Your task to perform on an android device: clear all cookies in the chrome app Image 0: 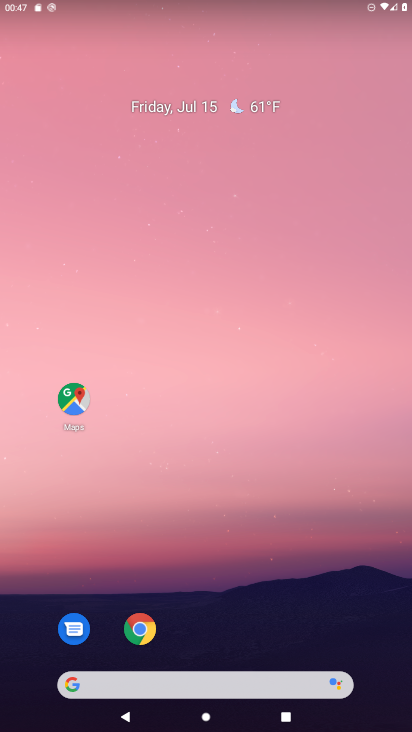
Step 0: click (147, 633)
Your task to perform on an android device: clear all cookies in the chrome app Image 1: 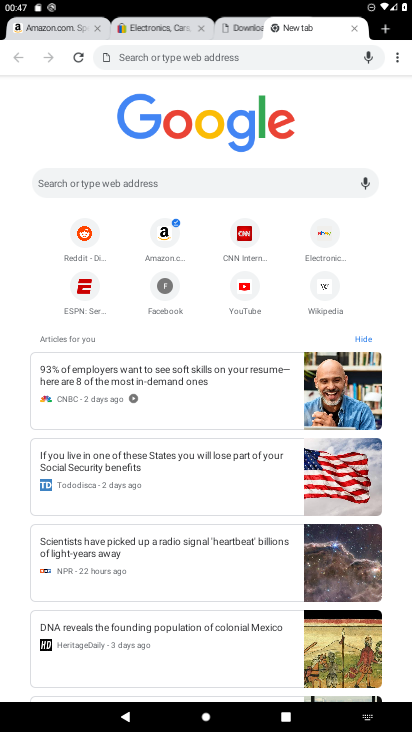
Step 1: click (405, 62)
Your task to perform on an android device: clear all cookies in the chrome app Image 2: 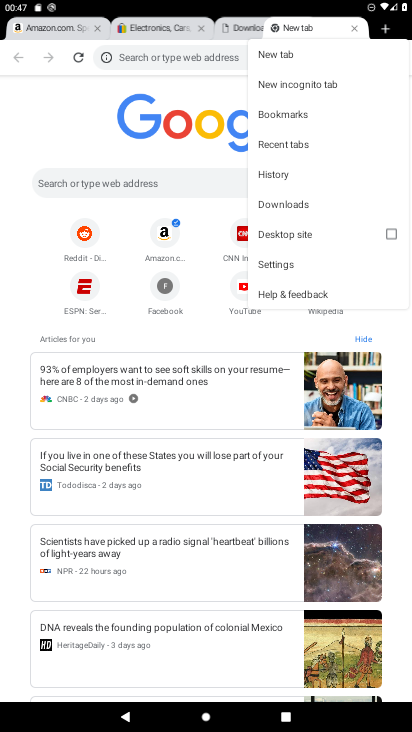
Step 2: click (296, 266)
Your task to perform on an android device: clear all cookies in the chrome app Image 3: 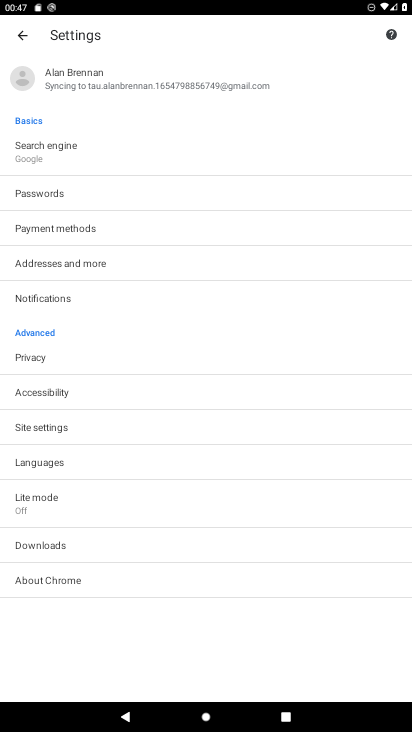
Step 3: click (27, 35)
Your task to perform on an android device: clear all cookies in the chrome app Image 4: 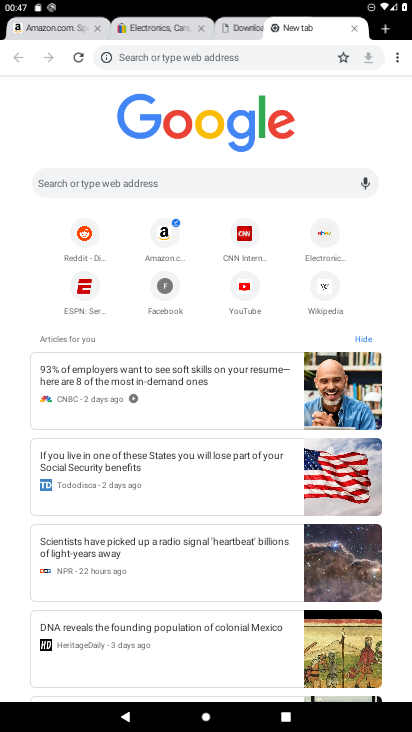
Step 4: click (398, 57)
Your task to perform on an android device: clear all cookies in the chrome app Image 5: 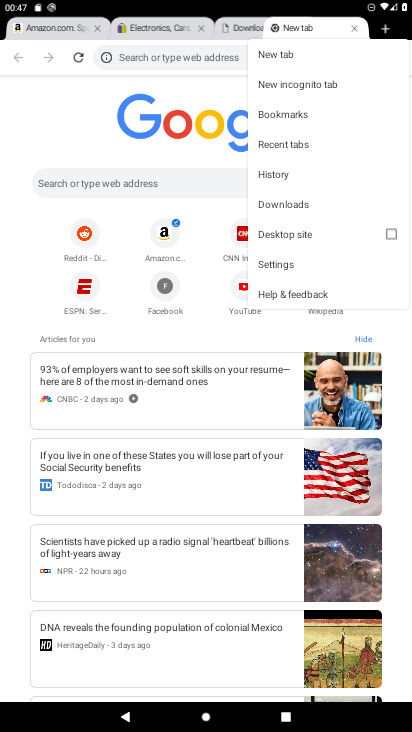
Step 5: click (285, 170)
Your task to perform on an android device: clear all cookies in the chrome app Image 6: 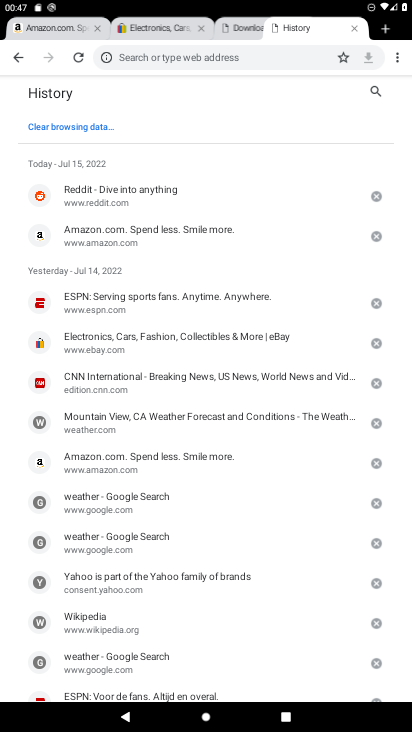
Step 6: click (73, 134)
Your task to perform on an android device: clear all cookies in the chrome app Image 7: 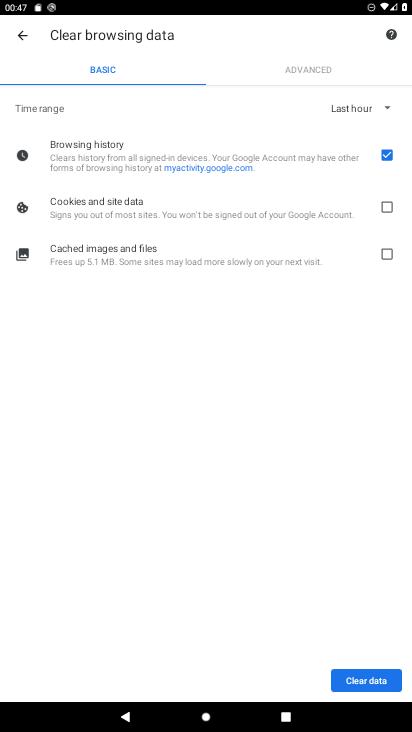
Step 7: click (386, 156)
Your task to perform on an android device: clear all cookies in the chrome app Image 8: 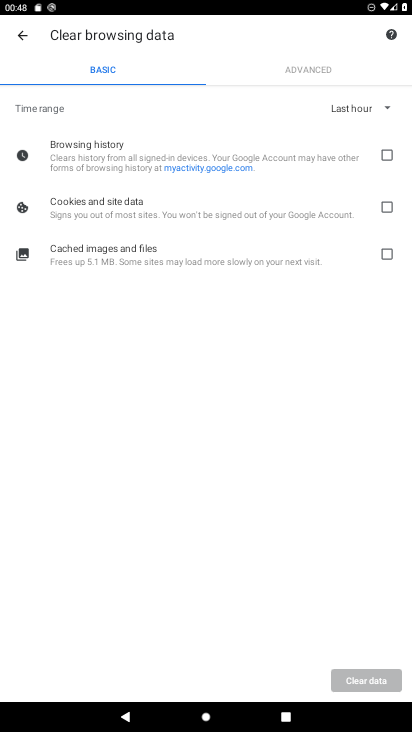
Step 8: click (389, 207)
Your task to perform on an android device: clear all cookies in the chrome app Image 9: 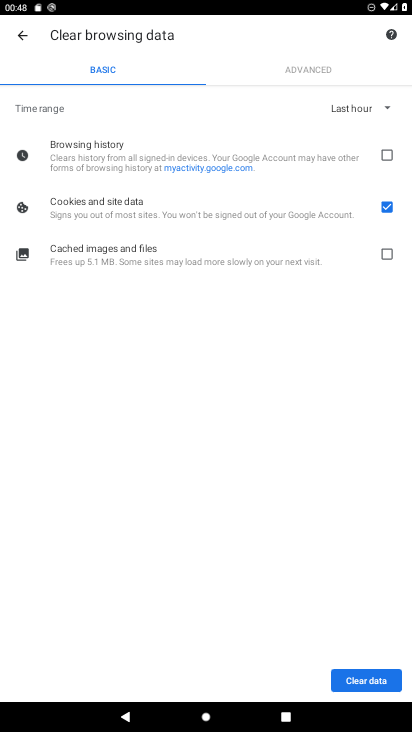
Step 9: click (362, 690)
Your task to perform on an android device: clear all cookies in the chrome app Image 10: 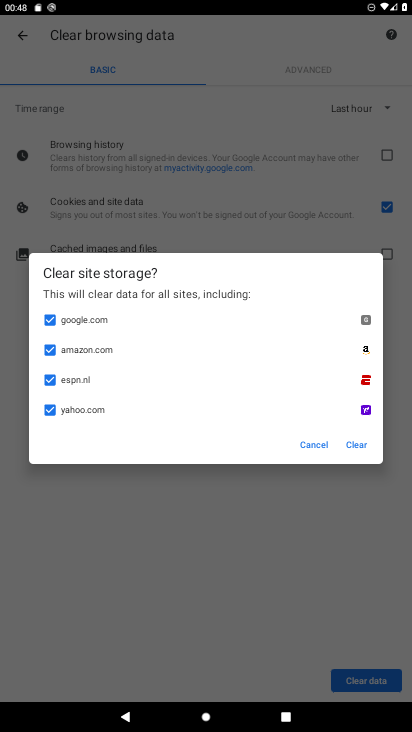
Step 10: click (356, 447)
Your task to perform on an android device: clear all cookies in the chrome app Image 11: 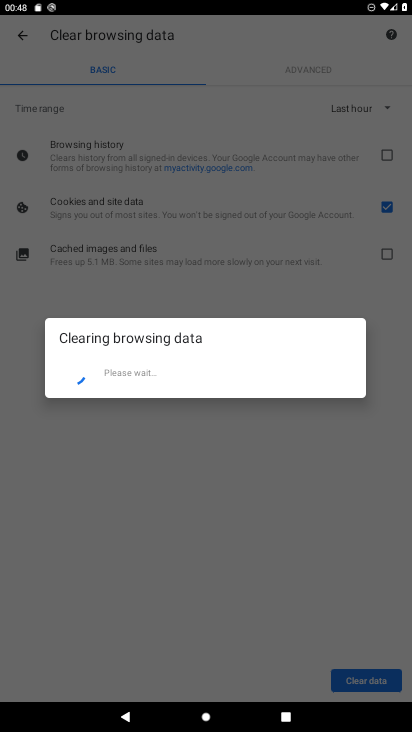
Step 11: task complete